Your task to perform on an android device: Open the Play Movies app and select the watchlist tab. Image 0: 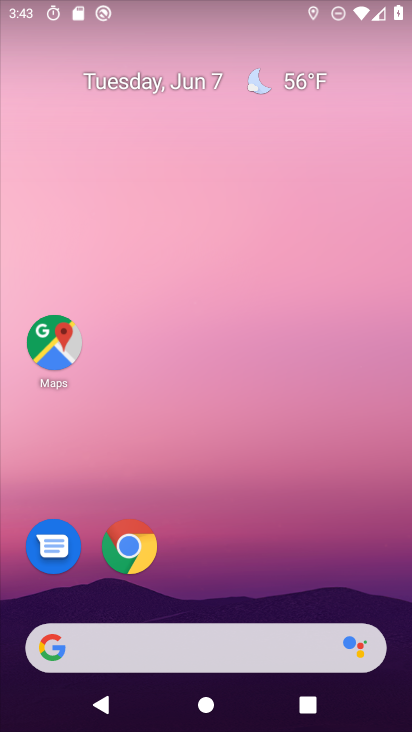
Step 0: drag from (272, 528) to (193, 7)
Your task to perform on an android device: Open the Play Movies app and select the watchlist tab. Image 1: 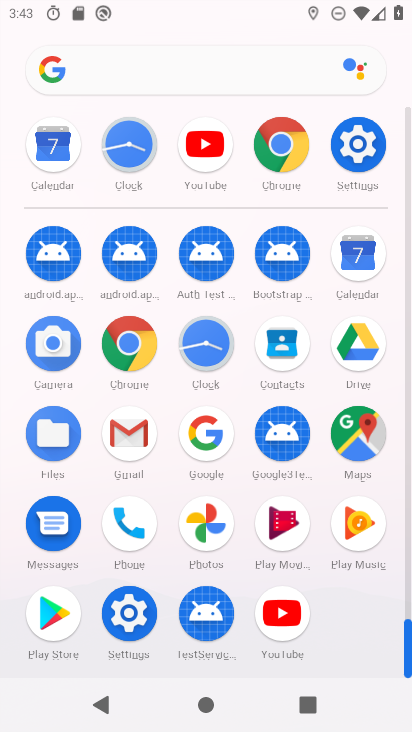
Step 1: drag from (7, 532) to (16, 226)
Your task to perform on an android device: Open the Play Movies app and select the watchlist tab. Image 2: 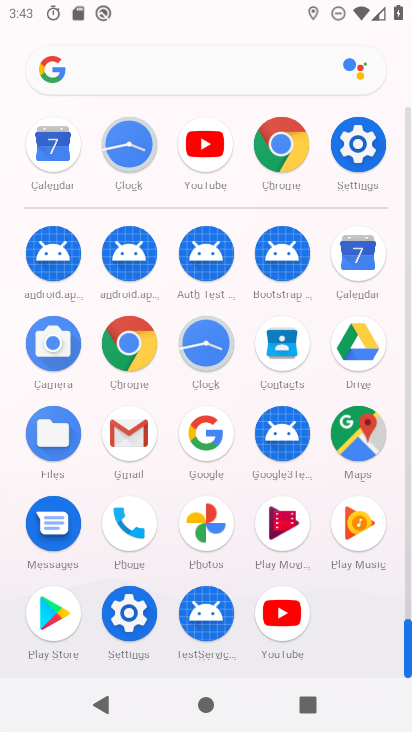
Step 2: click (279, 519)
Your task to perform on an android device: Open the Play Movies app and select the watchlist tab. Image 3: 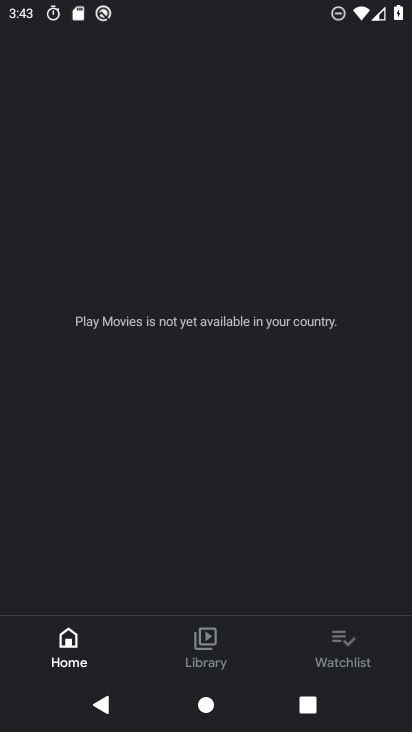
Step 3: click (354, 664)
Your task to perform on an android device: Open the Play Movies app and select the watchlist tab. Image 4: 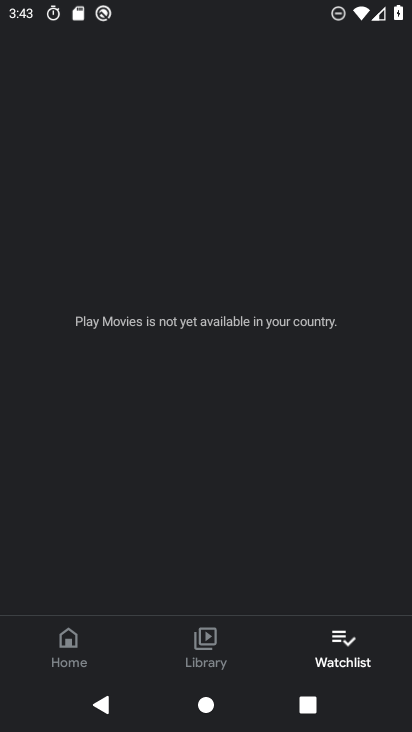
Step 4: task complete